Your task to perform on an android device: Find coffee shops on Maps Image 0: 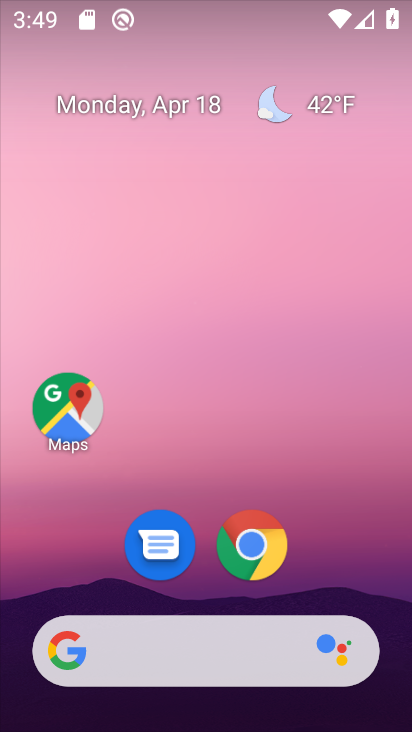
Step 0: drag from (317, 560) to (321, 150)
Your task to perform on an android device: Find coffee shops on Maps Image 1: 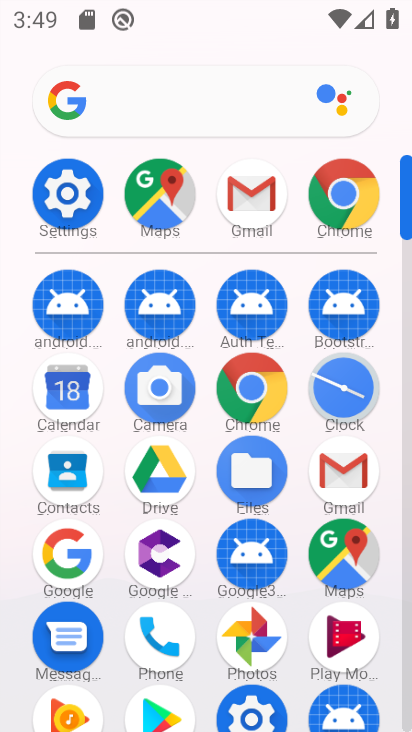
Step 1: click (342, 573)
Your task to perform on an android device: Find coffee shops on Maps Image 2: 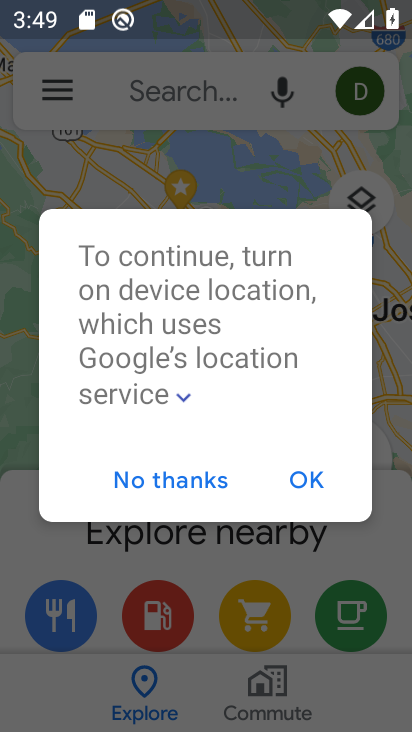
Step 2: click (195, 490)
Your task to perform on an android device: Find coffee shops on Maps Image 3: 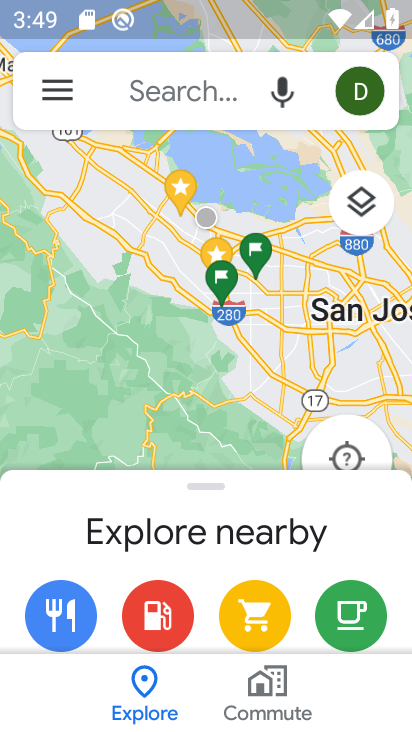
Step 3: click (182, 83)
Your task to perform on an android device: Find coffee shops on Maps Image 4: 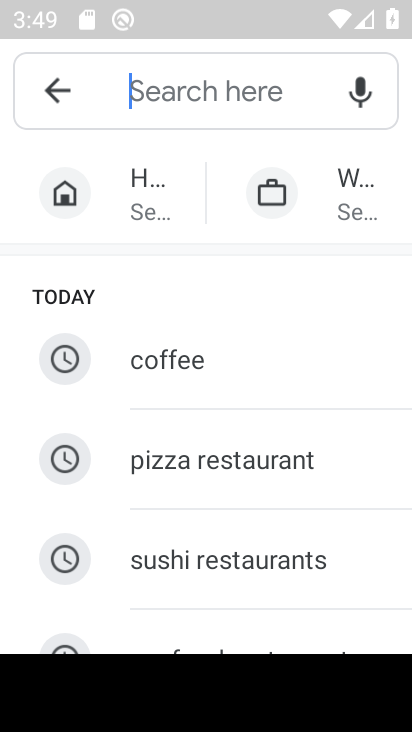
Step 4: type "coffee"
Your task to perform on an android device: Find coffee shops on Maps Image 5: 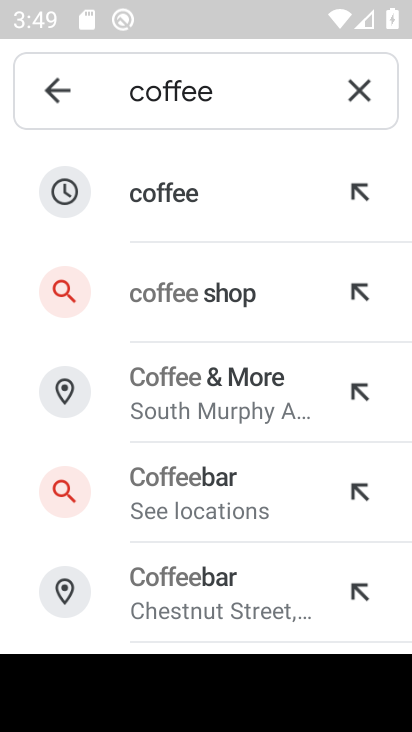
Step 5: click (187, 203)
Your task to perform on an android device: Find coffee shops on Maps Image 6: 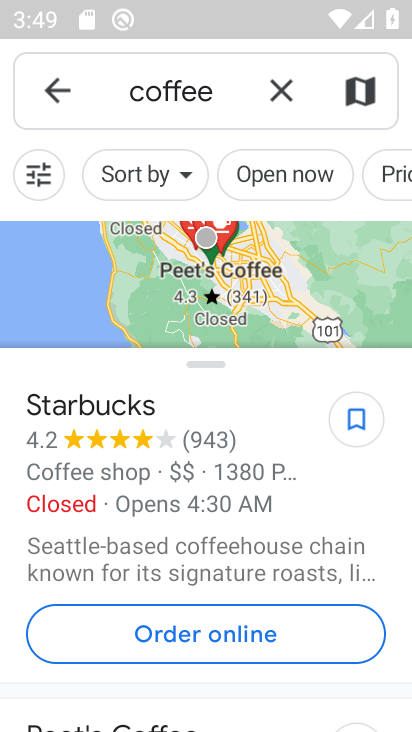
Step 6: task complete